Your task to perform on an android device: Open Reddit.com Image 0: 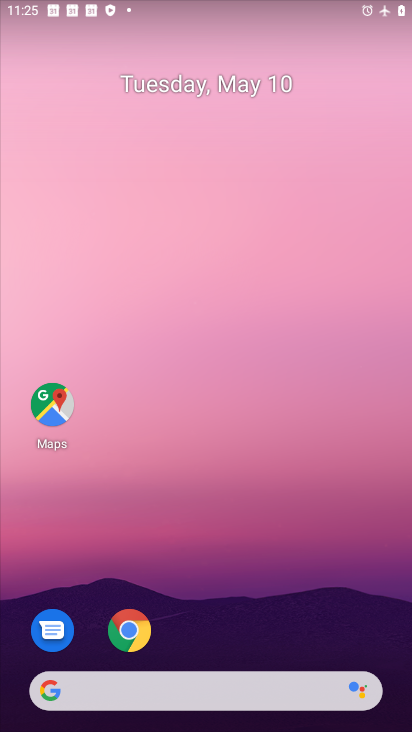
Step 0: click (169, 690)
Your task to perform on an android device: Open Reddit.com Image 1: 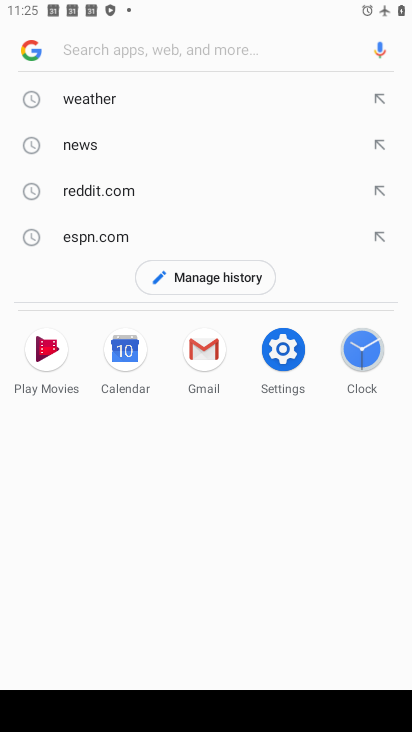
Step 1: click (113, 189)
Your task to perform on an android device: Open Reddit.com Image 2: 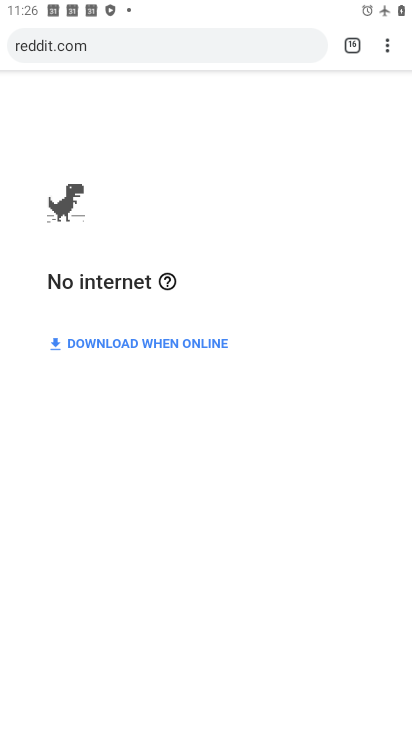
Step 2: task complete